Your task to perform on an android device: turn vacation reply on in the gmail app Image 0: 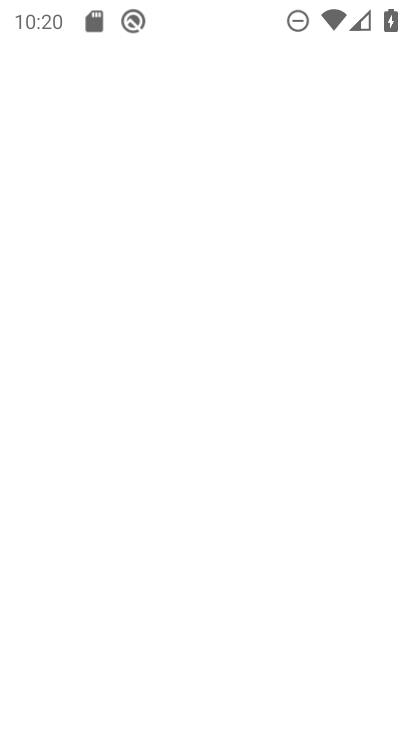
Step 0: press home button
Your task to perform on an android device: turn vacation reply on in the gmail app Image 1: 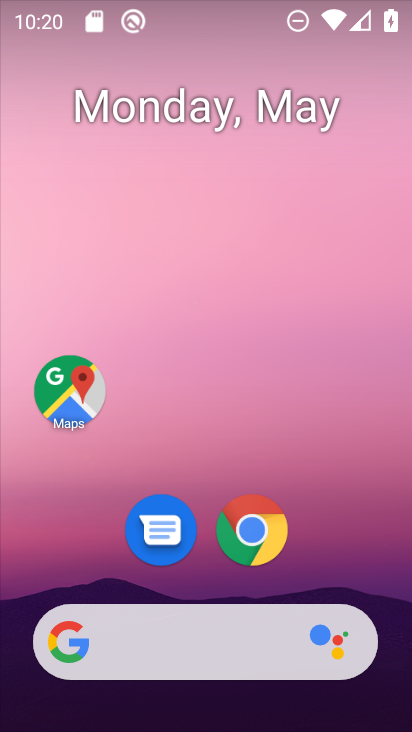
Step 1: drag from (155, 644) to (111, 173)
Your task to perform on an android device: turn vacation reply on in the gmail app Image 2: 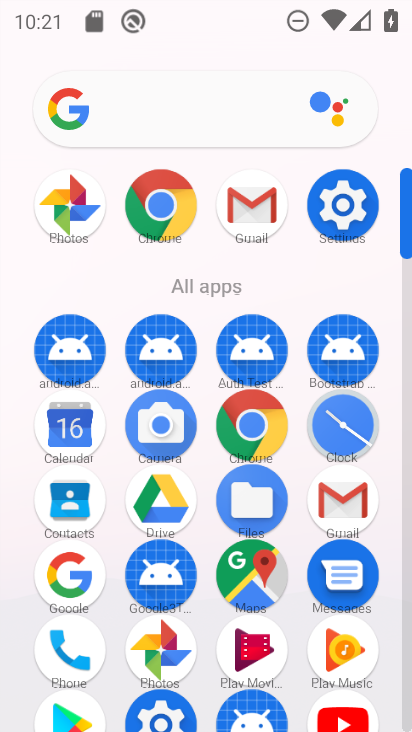
Step 2: click (343, 495)
Your task to perform on an android device: turn vacation reply on in the gmail app Image 3: 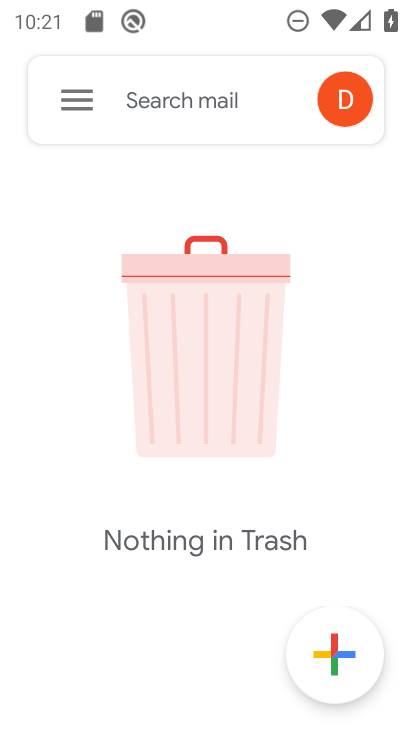
Step 3: click (83, 107)
Your task to perform on an android device: turn vacation reply on in the gmail app Image 4: 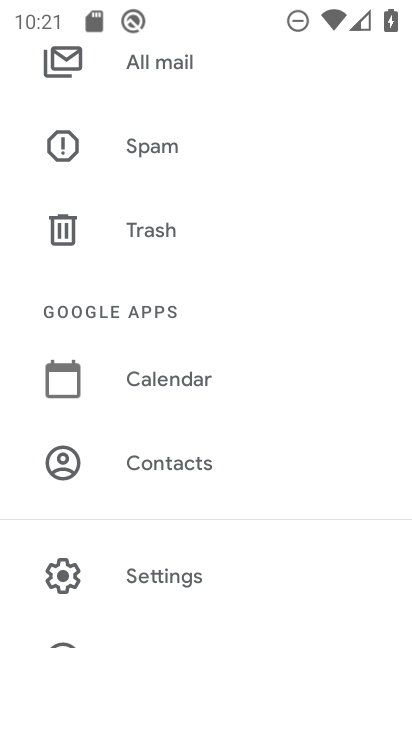
Step 4: click (147, 575)
Your task to perform on an android device: turn vacation reply on in the gmail app Image 5: 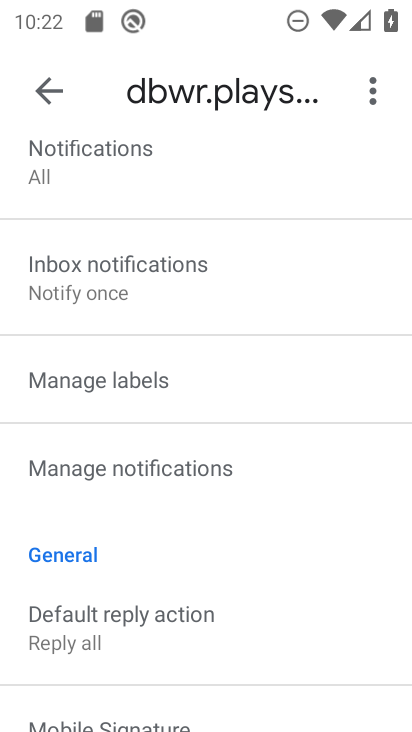
Step 5: drag from (145, 610) to (113, 123)
Your task to perform on an android device: turn vacation reply on in the gmail app Image 6: 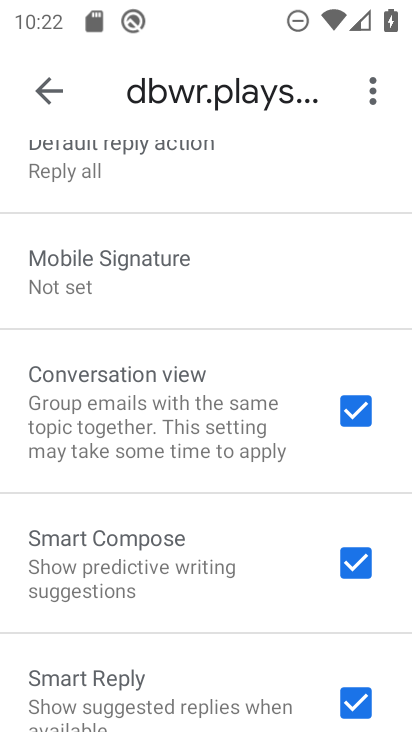
Step 6: drag from (194, 545) to (167, 58)
Your task to perform on an android device: turn vacation reply on in the gmail app Image 7: 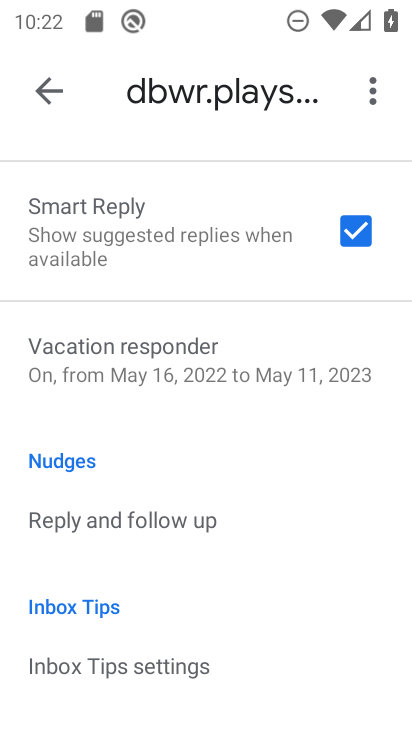
Step 7: click (111, 352)
Your task to perform on an android device: turn vacation reply on in the gmail app Image 8: 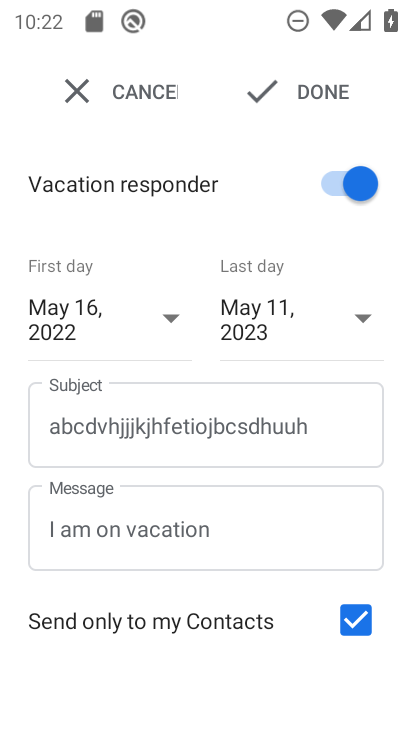
Step 8: click (291, 84)
Your task to perform on an android device: turn vacation reply on in the gmail app Image 9: 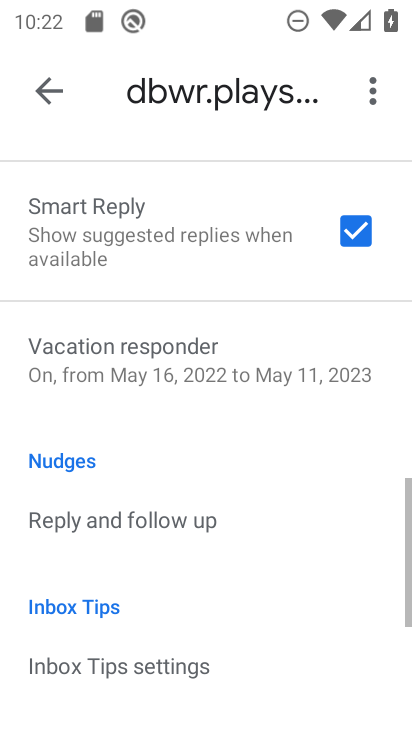
Step 9: task complete